Your task to perform on an android device: Is it going to rain tomorrow? Image 0: 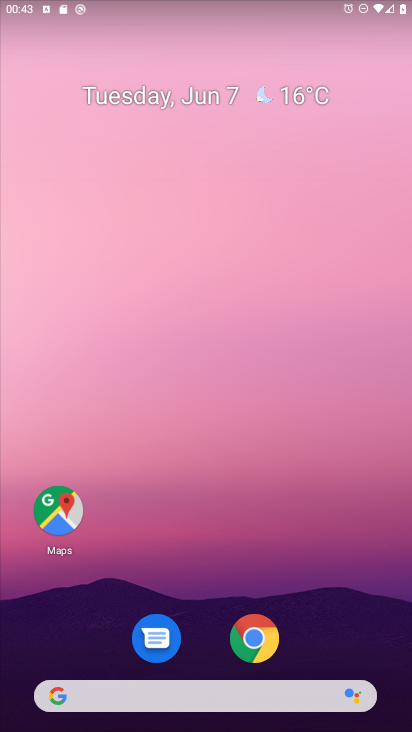
Step 0: drag from (260, 714) to (236, 215)
Your task to perform on an android device: Is it going to rain tomorrow? Image 1: 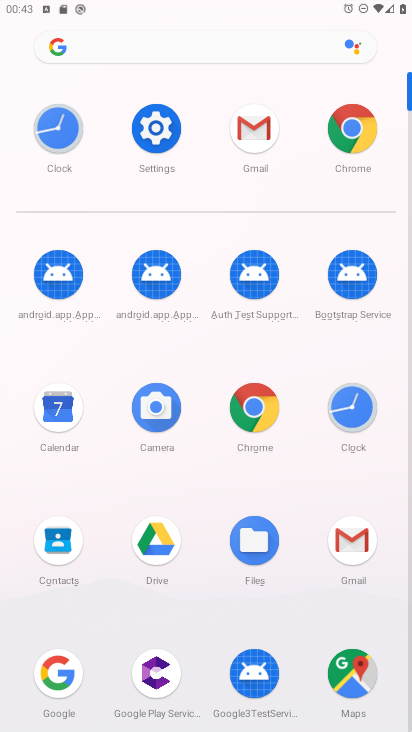
Step 1: click (113, 45)
Your task to perform on an android device: Is it going to rain tomorrow? Image 2: 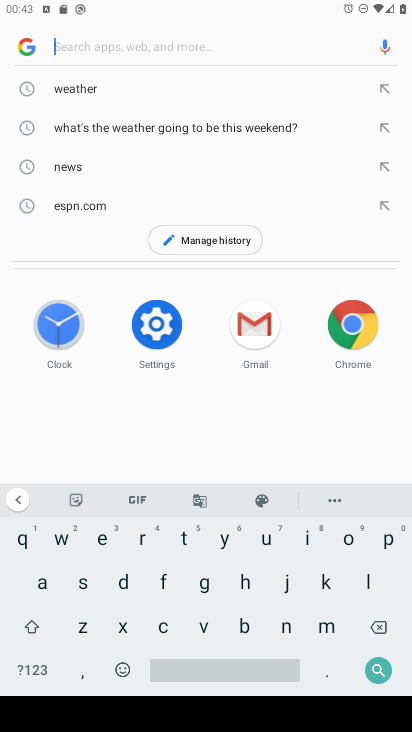
Step 2: click (136, 532)
Your task to perform on an android device: Is it going to rain tomorrow? Image 3: 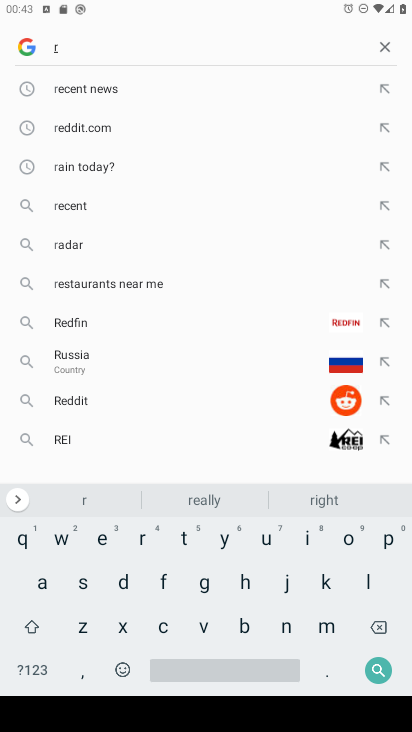
Step 3: click (35, 585)
Your task to perform on an android device: Is it going to rain tomorrow? Image 4: 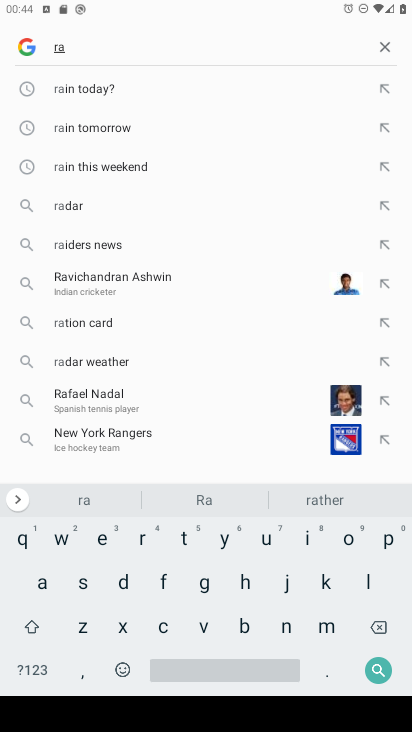
Step 4: click (303, 537)
Your task to perform on an android device: Is it going to rain tomorrow? Image 5: 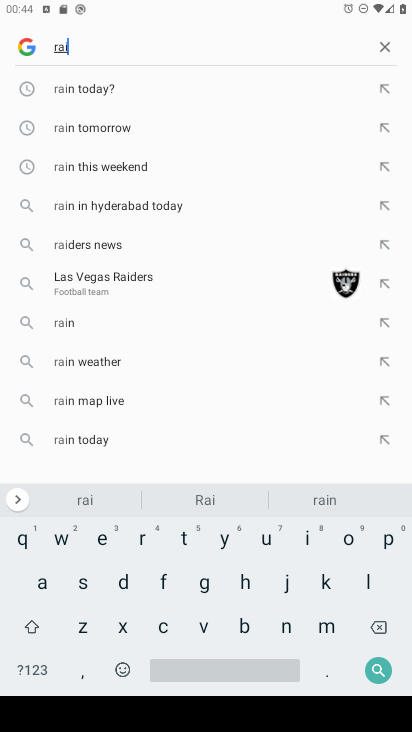
Step 5: click (286, 616)
Your task to perform on an android device: Is it going to rain tomorrow? Image 6: 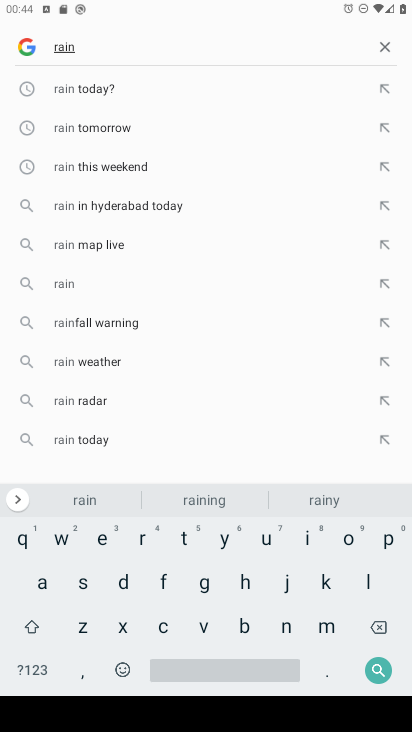
Step 6: click (240, 667)
Your task to perform on an android device: Is it going to rain tomorrow? Image 7: 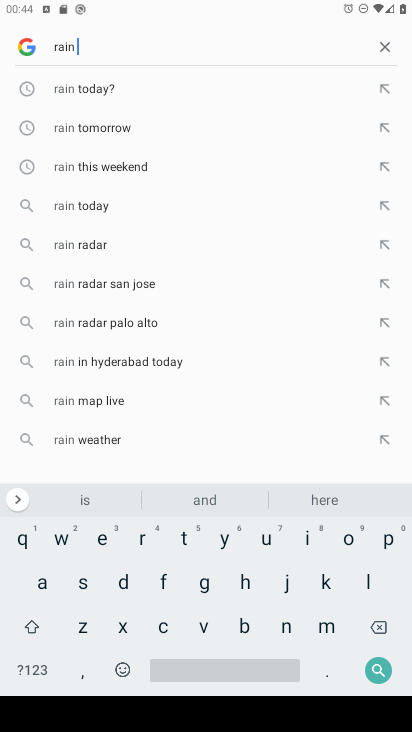
Step 7: click (86, 130)
Your task to perform on an android device: Is it going to rain tomorrow? Image 8: 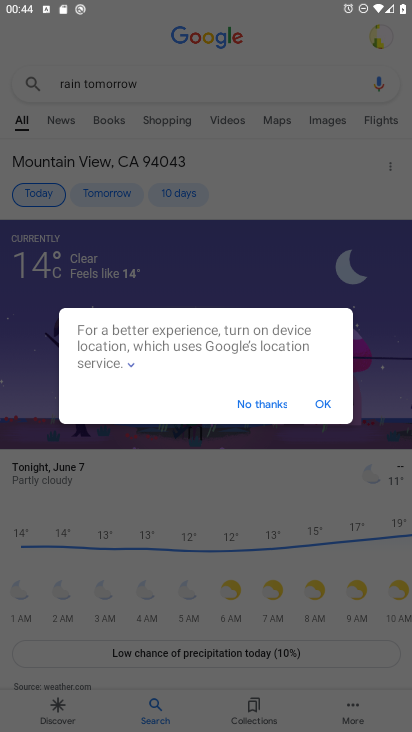
Step 8: click (325, 400)
Your task to perform on an android device: Is it going to rain tomorrow? Image 9: 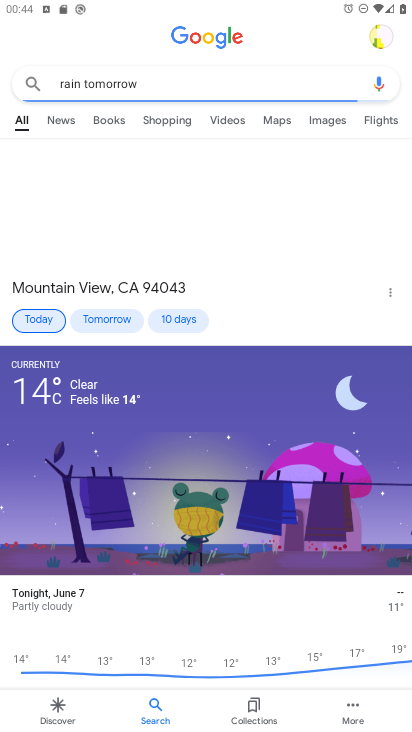
Step 9: task complete